Your task to perform on an android device: Clear all items from cart on costco. Image 0: 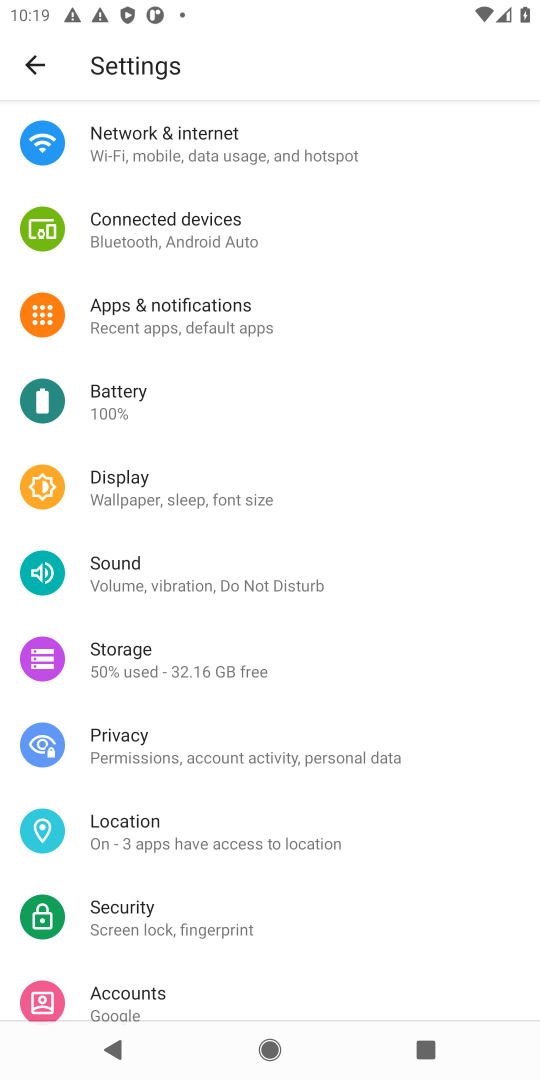
Step 0: task complete